Your task to perform on an android device: turn off javascript in the chrome app Image 0: 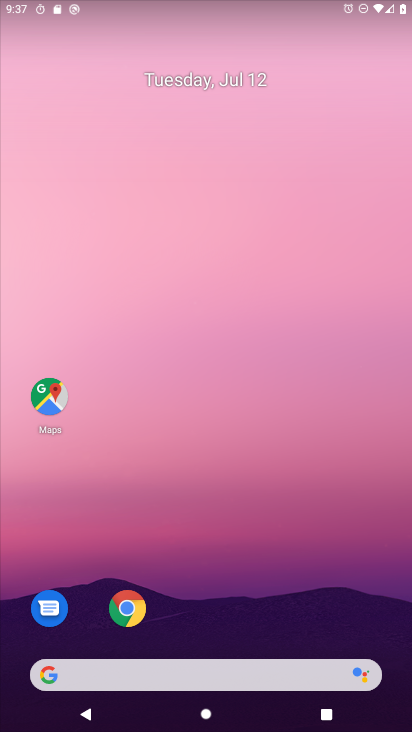
Step 0: click (128, 611)
Your task to perform on an android device: turn off javascript in the chrome app Image 1: 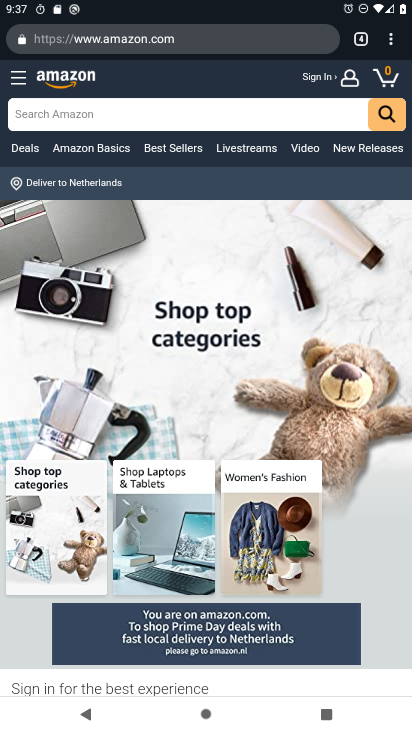
Step 1: click (398, 46)
Your task to perform on an android device: turn off javascript in the chrome app Image 2: 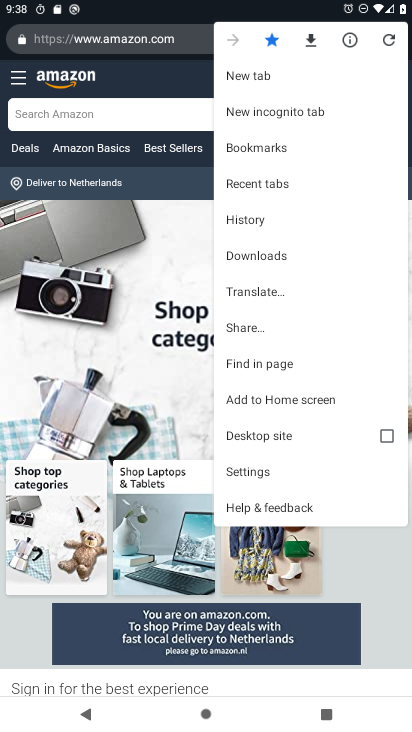
Step 2: click (291, 466)
Your task to perform on an android device: turn off javascript in the chrome app Image 3: 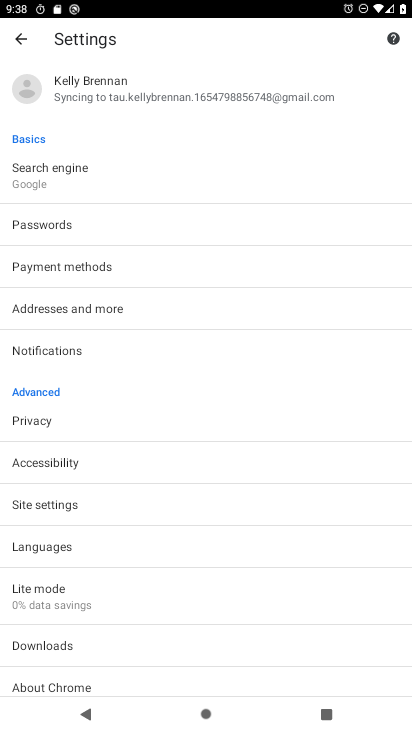
Step 3: drag from (166, 377) to (169, 320)
Your task to perform on an android device: turn off javascript in the chrome app Image 4: 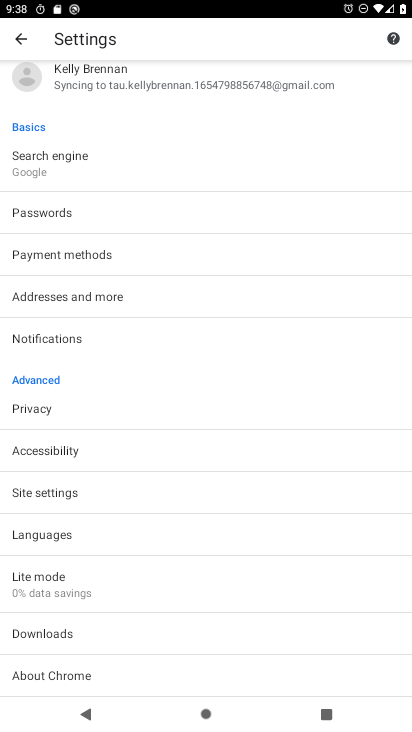
Step 4: click (111, 482)
Your task to perform on an android device: turn off javascript in the chrome app Image 5: 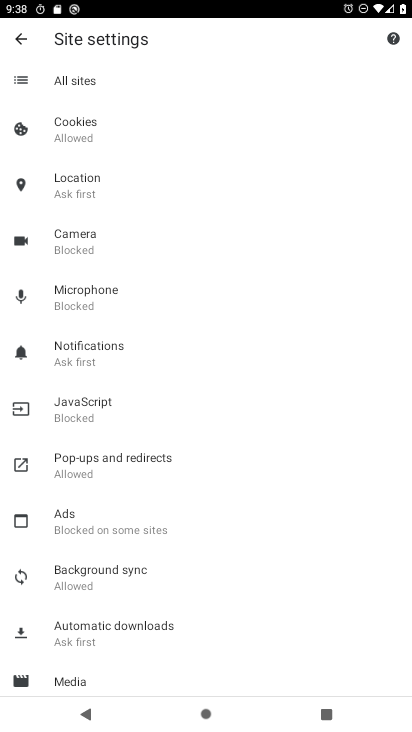
Step 5: click (113, 397)
Your task to perform on an android device: turn off javascript in the chrome app Image 6: 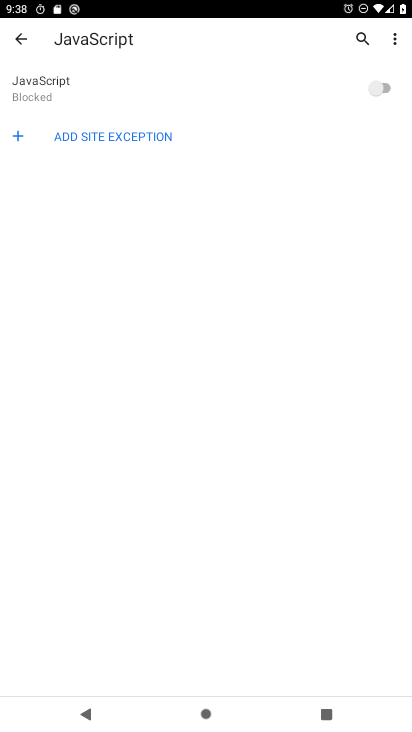
Step 6: task complete